Your task to perform on an android device: make emails show in primary in the gmail app Image 0: 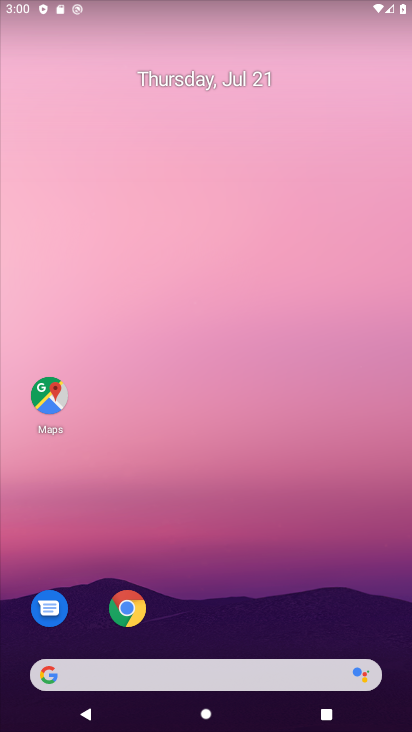
Step 0: drag from (249, 571) to (116, 90)
Your task to perform on an android device: make emails show in primary in the gmail app Image 1: 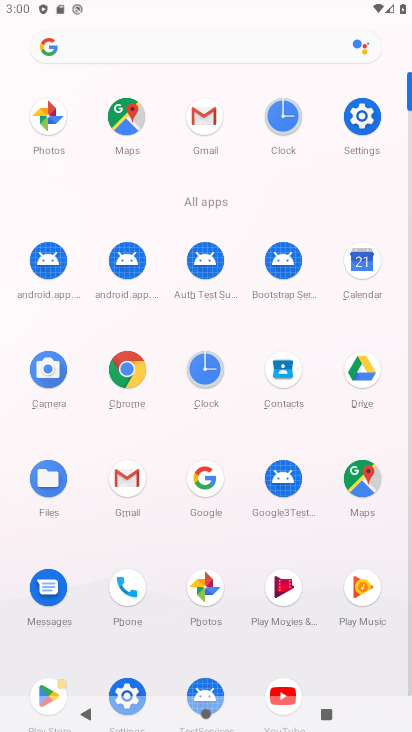
Step 1: click (136, 472)
Your task to perform on an android device: make emails show in primary in the gmail app Image 2: 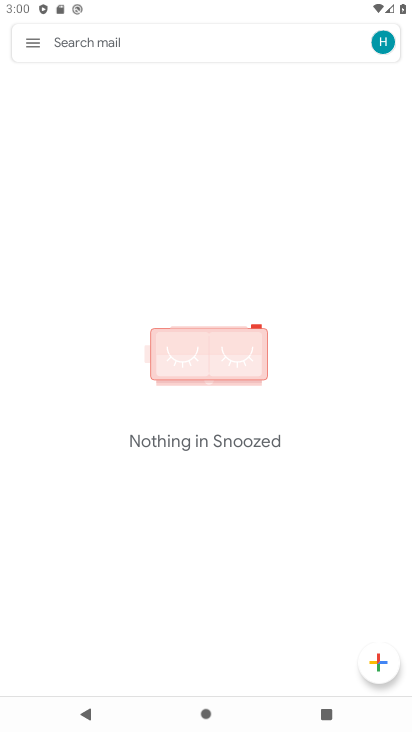
Step 2: click (45, 44)
Your task to perform on an android device: make emails show in primary in the gmail app Image 3: 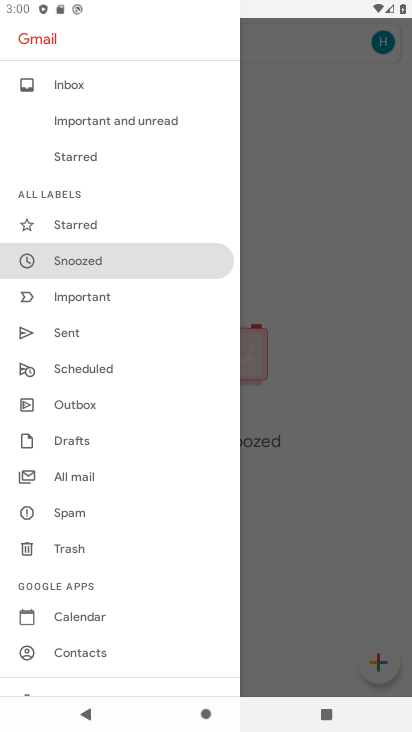
Step 3: drag from (155, 633) to (196, 179)
Your task to perform on an android device: make emails show in primary in the gmail app Image 4: 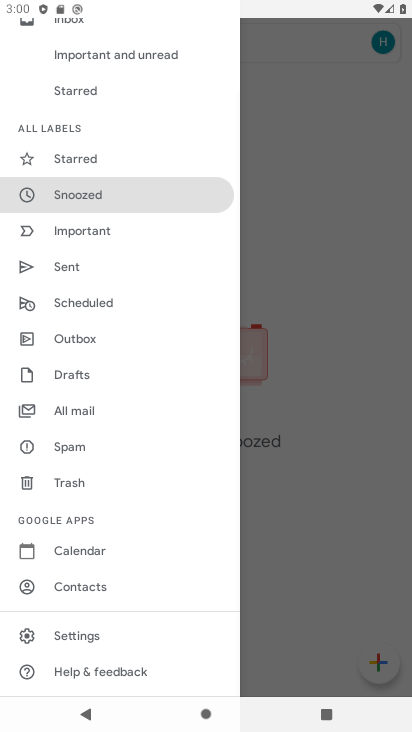
Step 4: click (103, 639)
Your task to perform on an android device: make emails show in primary in the gmail app Image 5: 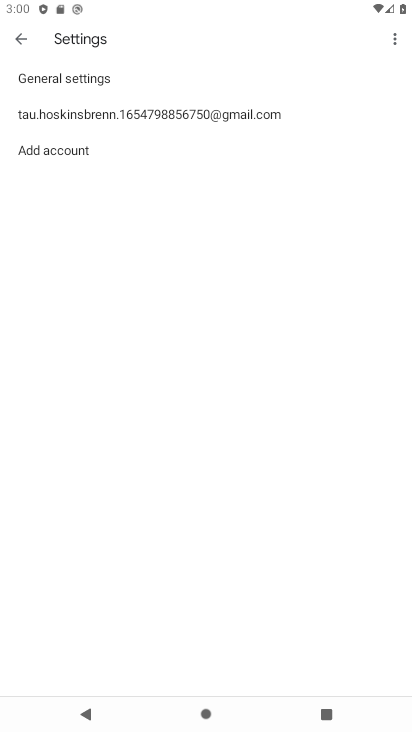
Step 5: click (166, 113)
Your task to perform on an android device: make emails show in primary in the gmail app Image 6: 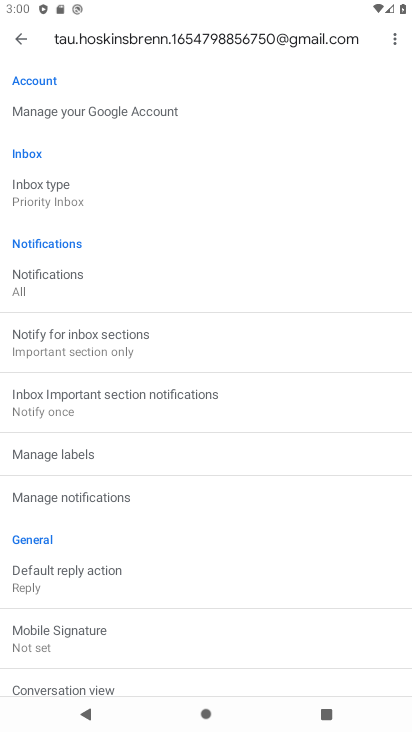
Step 6: press back button
Your task to perform on an android device: make emails show in primary in the gmail app Image 7: 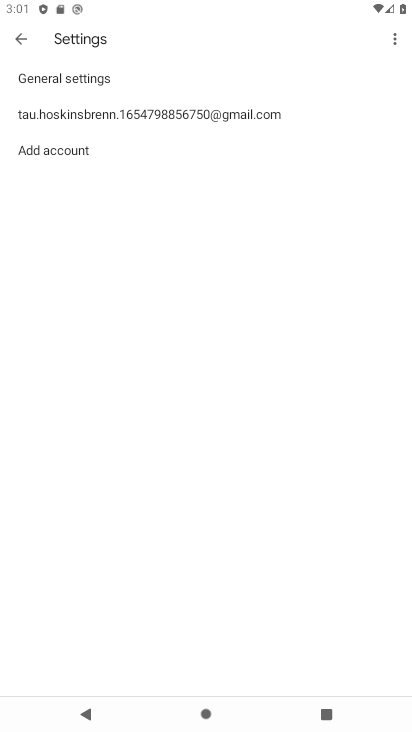
Step 7: click (184, 113)
Your task to perform on an android device: make emails show in primary in the gmail app Image 8: 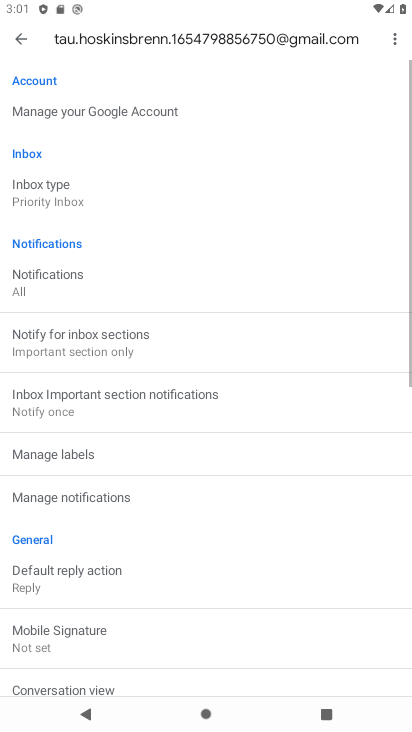
Step 8: click (87, 192)
Your task to perform on an android device: make emails show in primary in the gmail app Image 9: 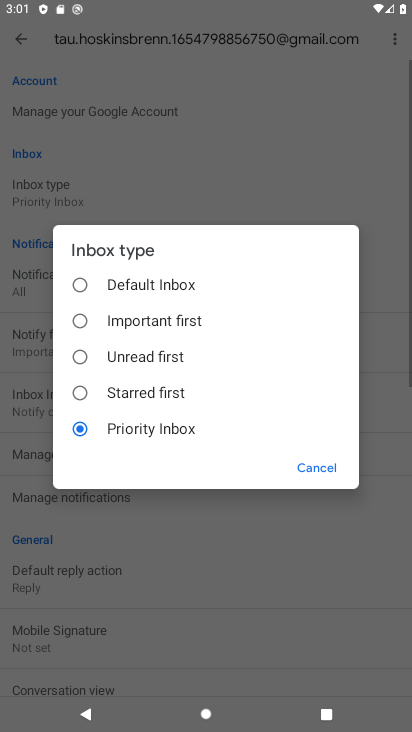
Step 9: click (74, 277)
Your task to perform on an android device: make emails show in primary in the gmail app Image 10: 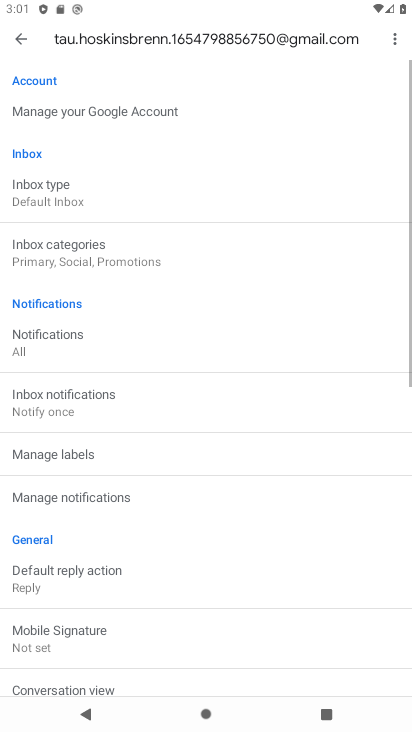
Step 10: press back button
Your task to perform on an android device: make emails show in primary in the gmail app Image 11: 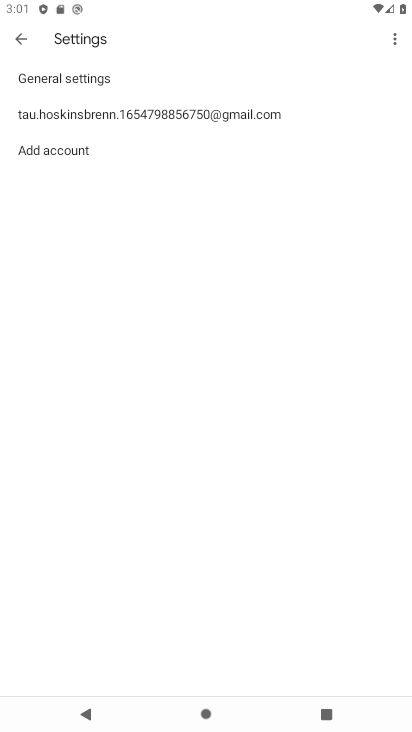
Step 11: press back button
Your task to perform on an android device: make emails show in primary in the gmail app Image 12: 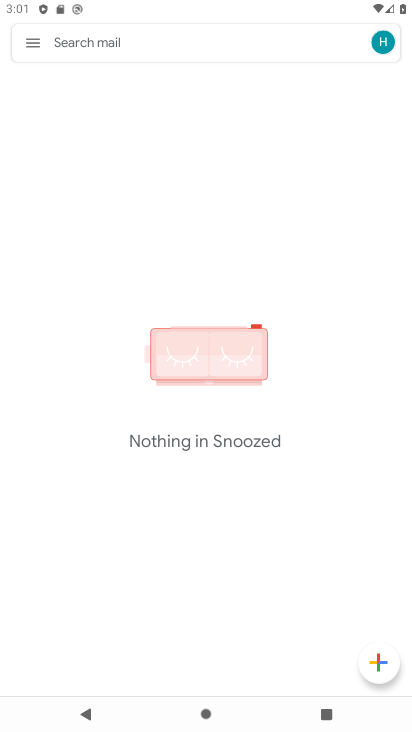
Step 12: click (31, 37)
Your task to perform on an android device: make emails show in primary in the gmail app Image 13: 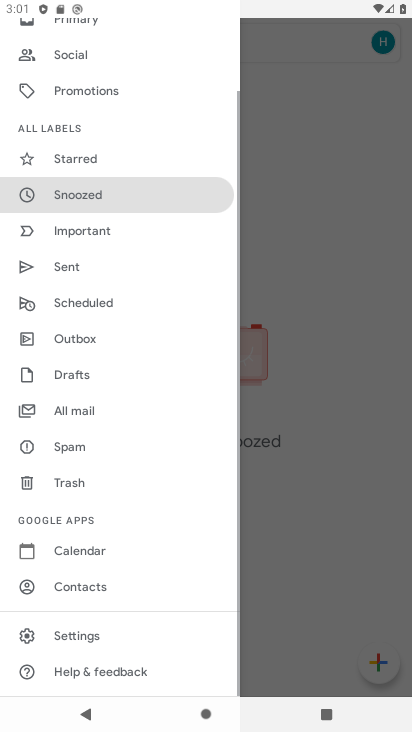
Step 13: drag from (58, 159) to (69, 482)
Your task to perform on an android device: make emails show in primary in the gmail app Image 14: 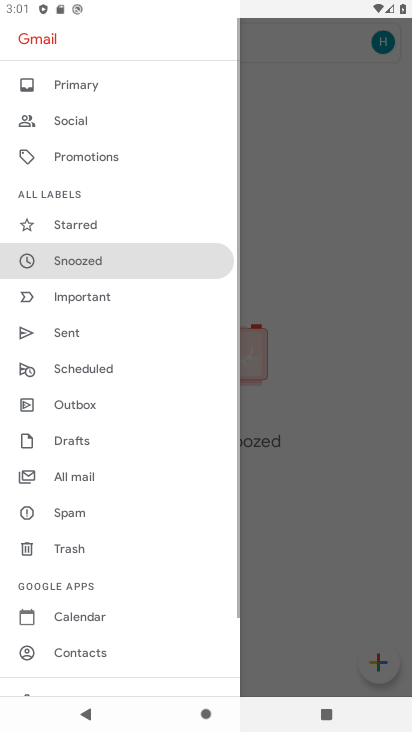
Step 14: click (106, 82)
Your task to perform on an android device: make emails show in primary in the gmail app Image 15: 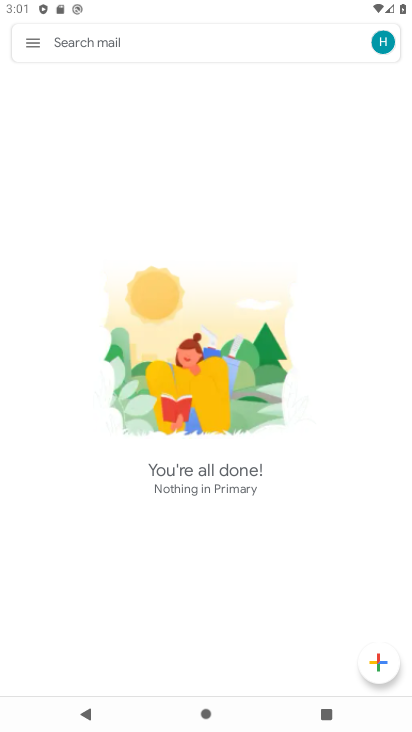
Step 15: task complete